Your task to perform on an android device: Search for seafood restaurants on Google Maps Image 0: 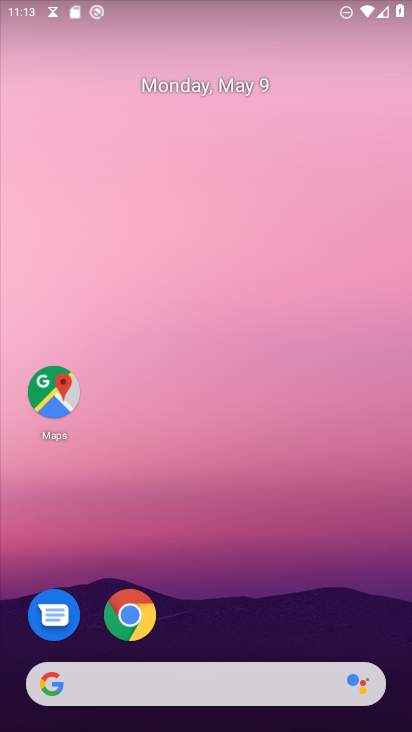
Step 0: drag from (222, 713) to (207, 248)
Your task to perform on an android device: Search for seafood restaurants on Google Maps Image 1: 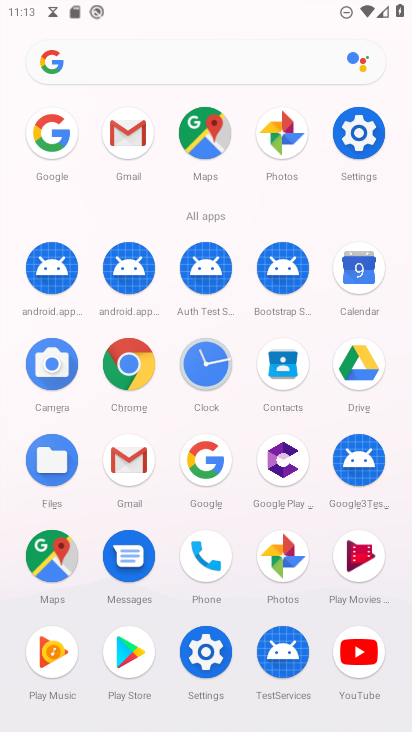
Step 1: click (61, 553)
Your task to perform on an android device: Search for seafood restaurants on Google Maps Image 2: 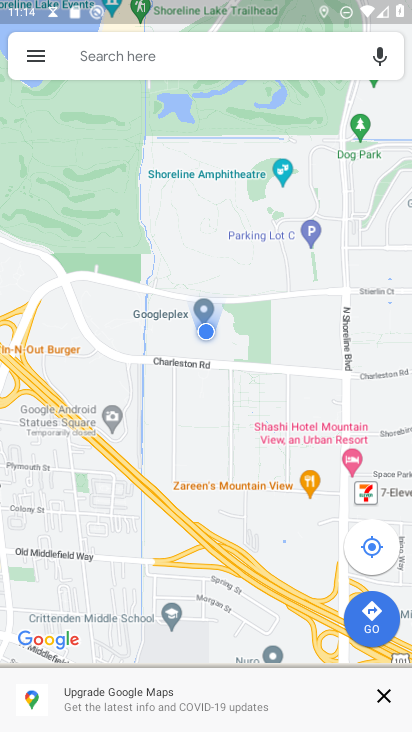
Step 2: click (159, 58)
Your task to perform on an android device: Search for seafood restaurants on Google Maps Image 3: 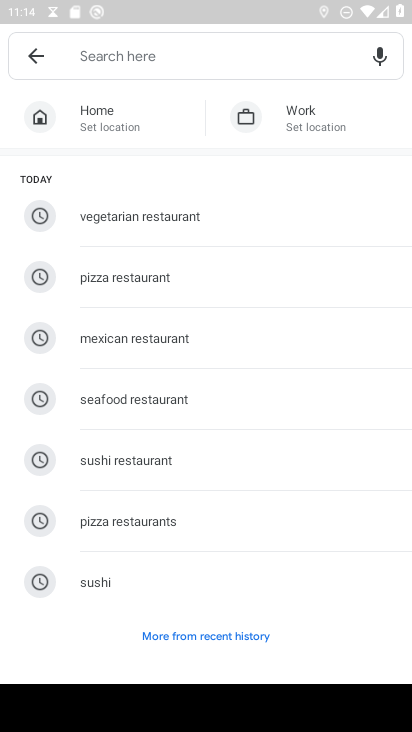
Step 3: type "seafood restaurants"
Your task to perform on an android device: Search for seafood restaurants on Google Maps Image 4: 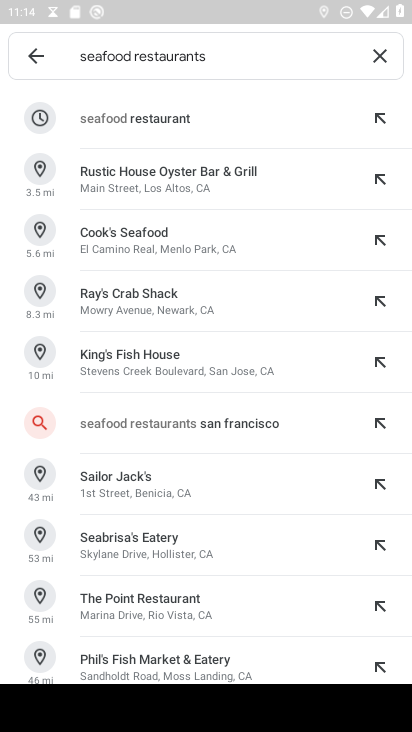
Step 4: click (183, 118)
Your task to perform on an android device: Search for seafood restaurants on Google Maps Image 5: 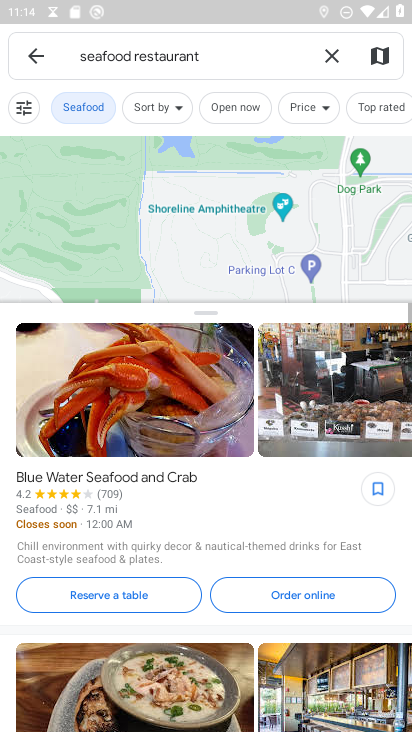
Step 5: task complete